Your task to perform on an android device: turn vacation reply on in the gmail app Image 0: 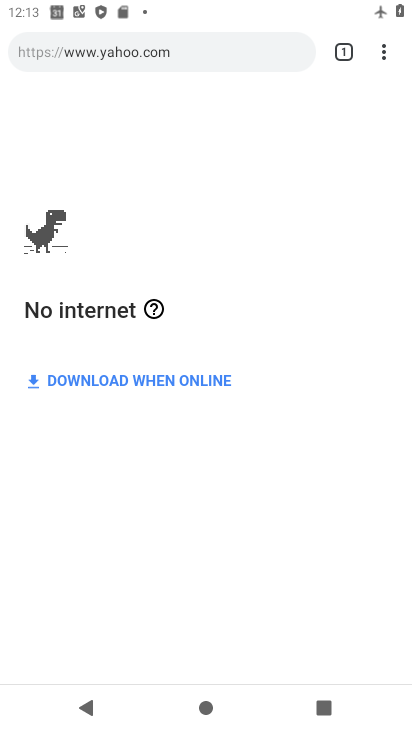
Step 0: press home button
Your task to perform on an android device: turn vacation reply on in the gmail app Image 1: 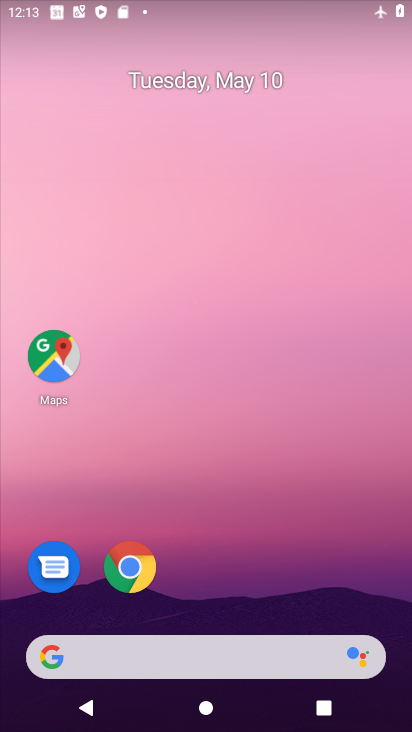
Step 1: drag from (377, 624) to (291, 78)
Your task to perform on an android device: turn vacation reply on in the gmail app Image 2: 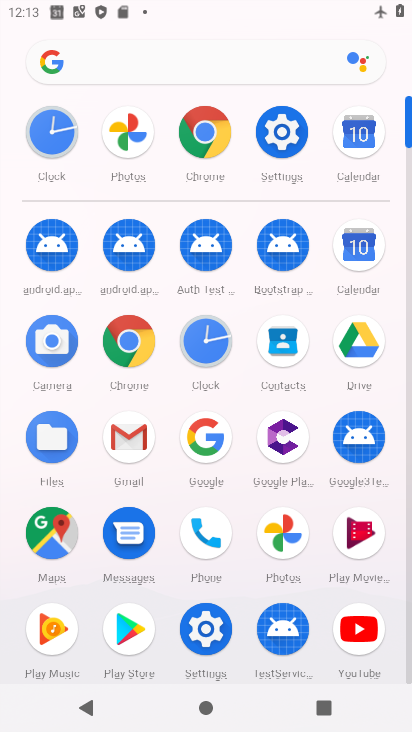
Step 2: click (146, 436)
Your task to perform on an android device: turn vacation reply on in the gmail app Image 3: 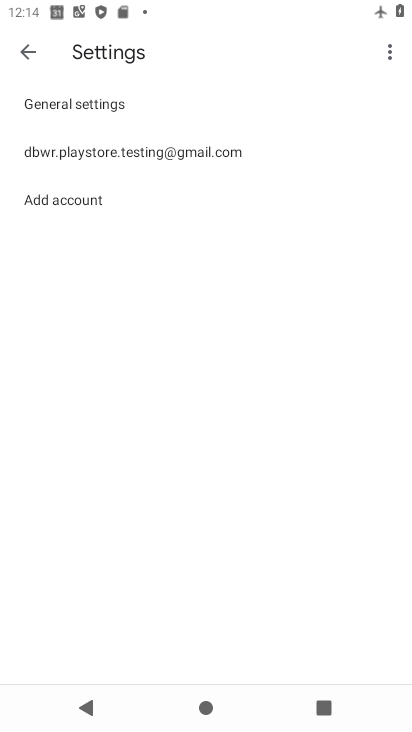
Step 3: click (242, 161)
Your task to perform on an android device: turn vacation reply on in the gmail app Image 4: 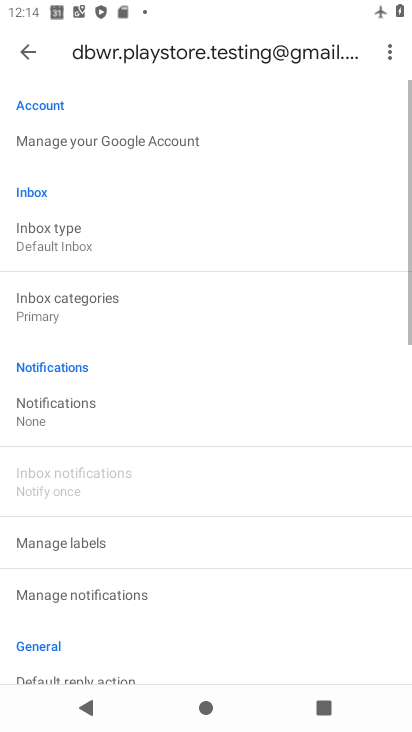
Step 4: drag from (206, 618) to (270, 139)
Your task to perform on an android device: turn vacation reply on in the gmail app Image 5: 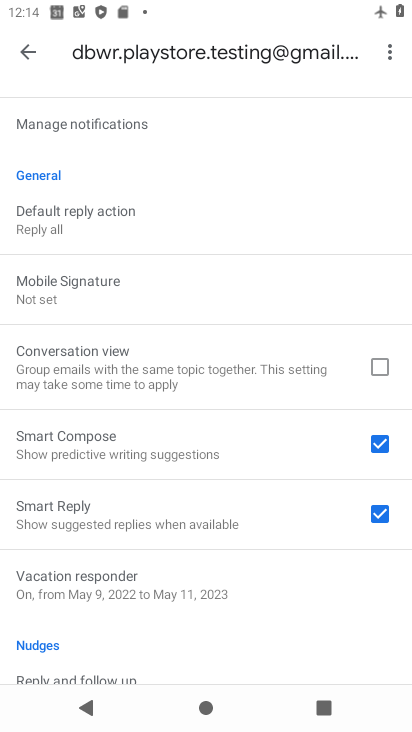
Step 5: click (194, 592)
Your task to perform on an android device: turn vacation reply on in the gmail app Image 6: 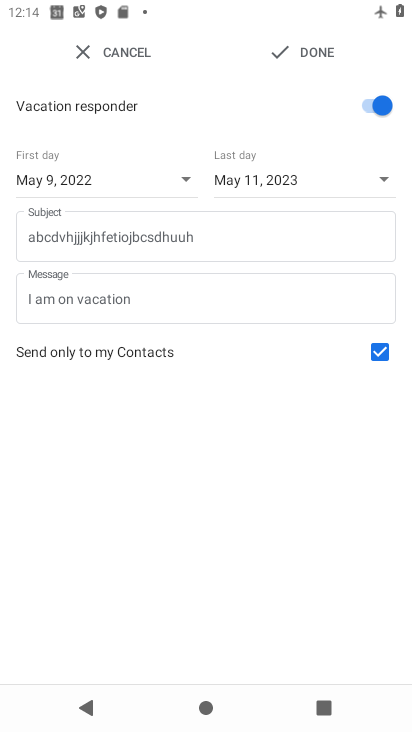
Step 6: task complete